Your task to perform on an android device: Add alienware aurora to the cart on newegg, then select checkout. Image 0: 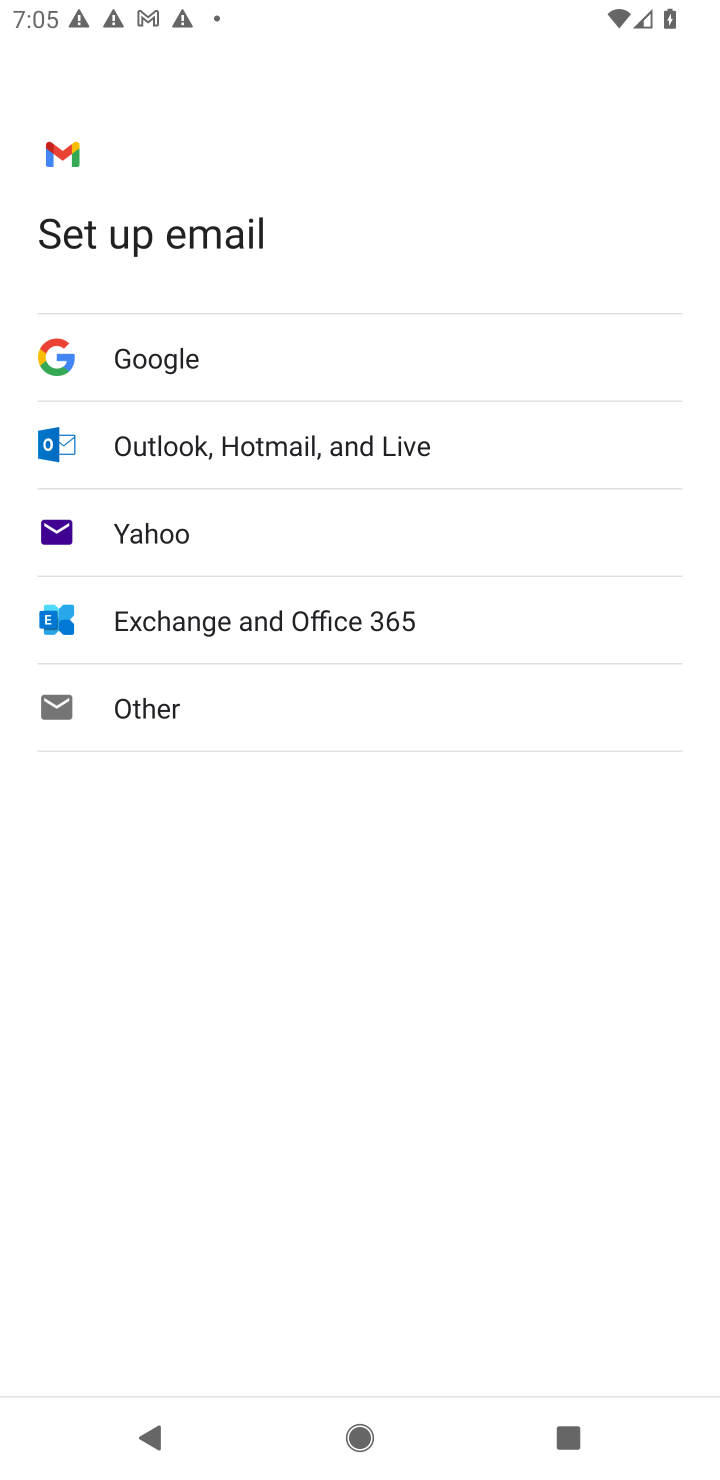
Step 0: press home button
Your task to perform on an android device: Add alienware aurora to the cart on newegg, then select checkout. Image 1: 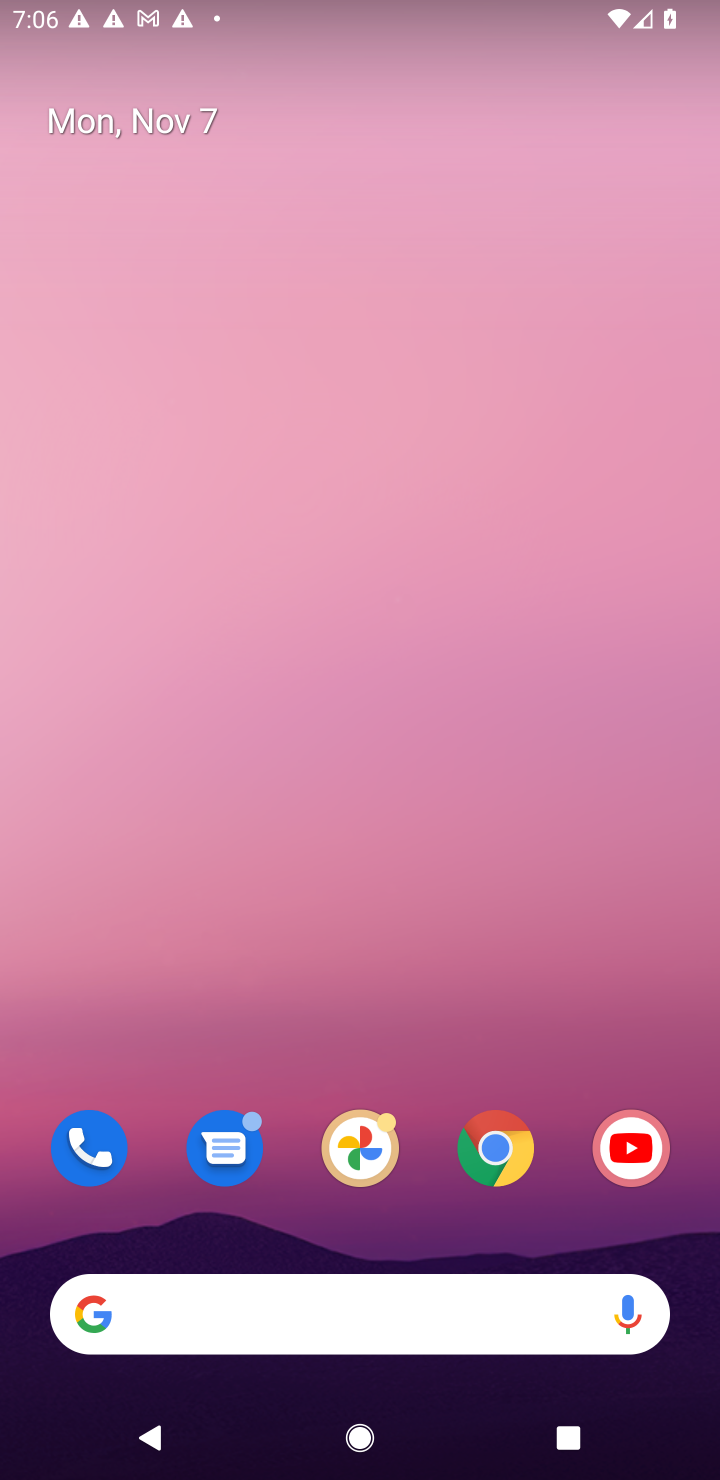
Step 1: click (512, 1133)
Your task to perform on an android device: Add alienware aurora to the cart on newegg, then select checkout. Image 2: 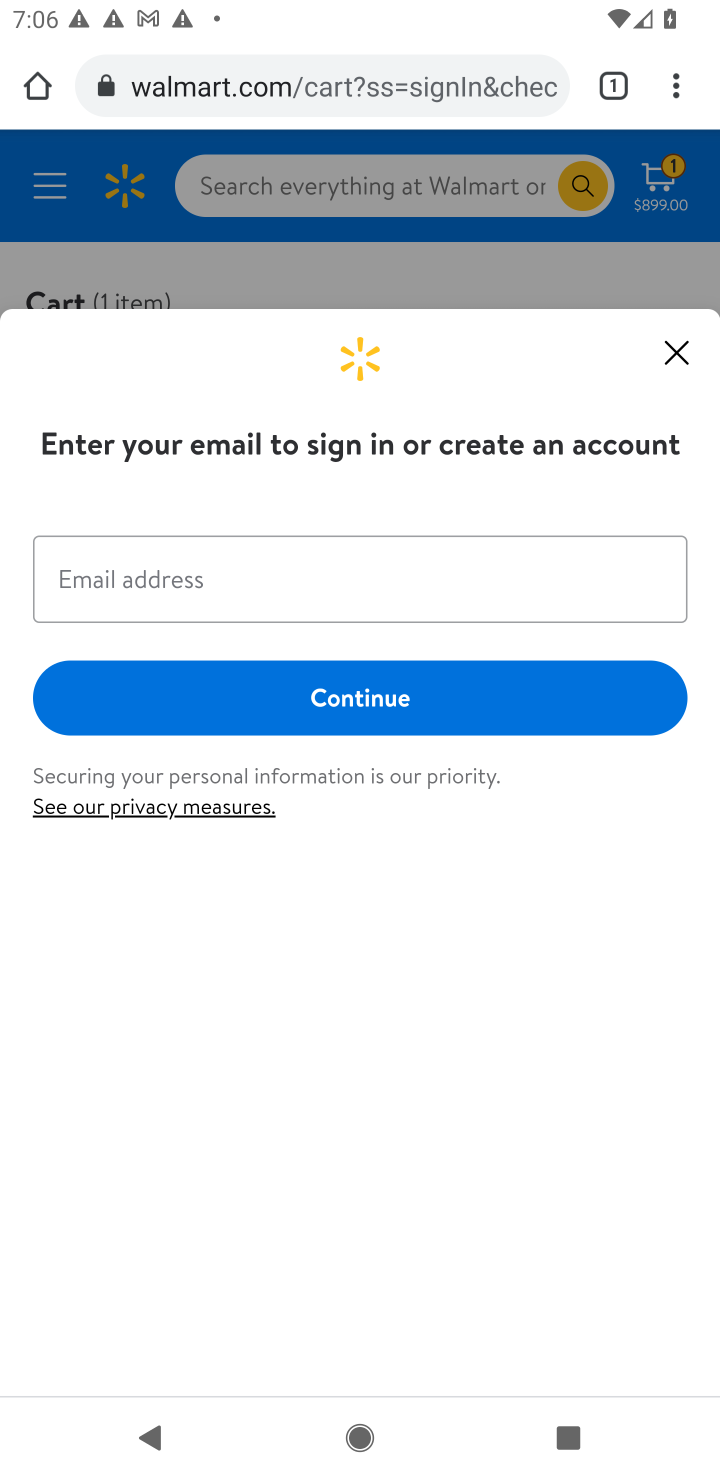
Step 2: click (391, 64)
Your task to perform on an android device: Add alienware aurora to the cart on newegg, then select checkout. Image 3: 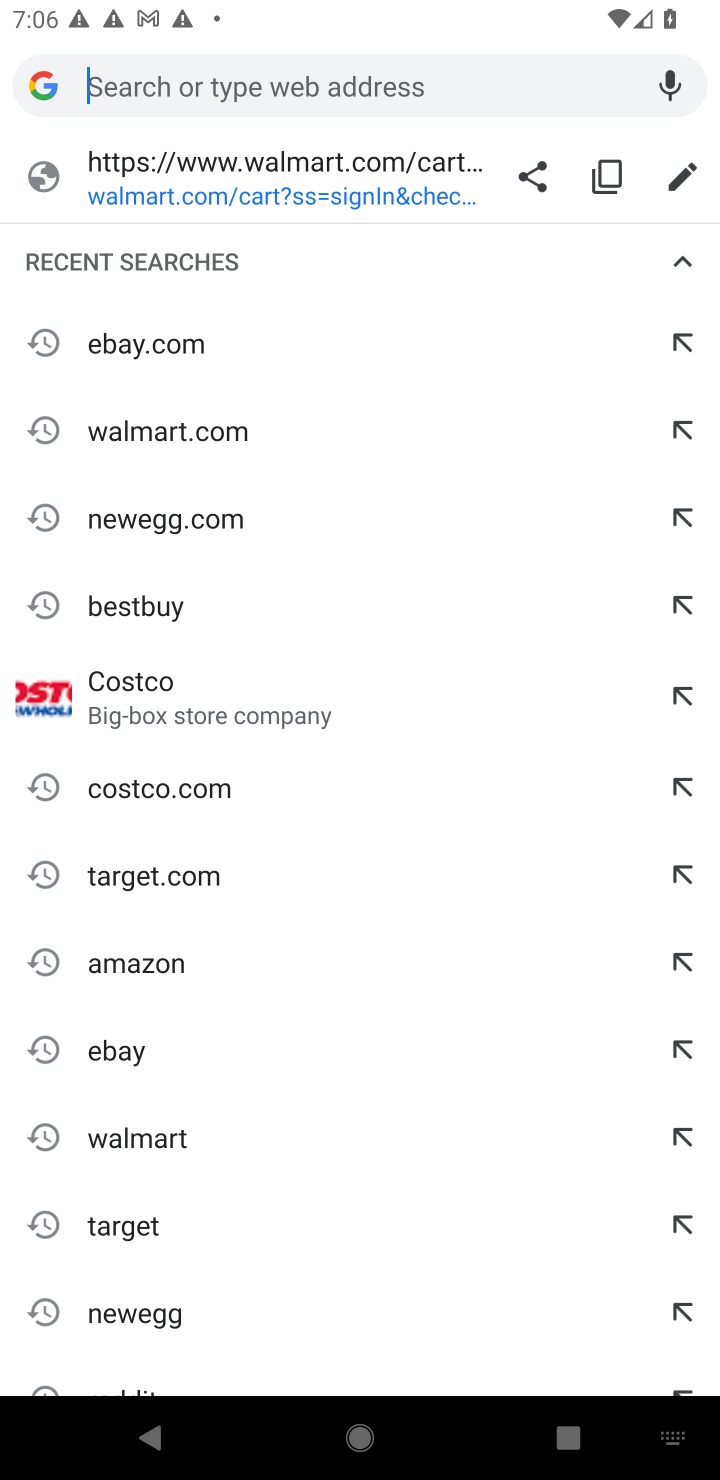
Step 3: click (199, 513)
Your task to perform on an android device: Add alienware aurora to the cart on newegg, then select checkout. Image 4: 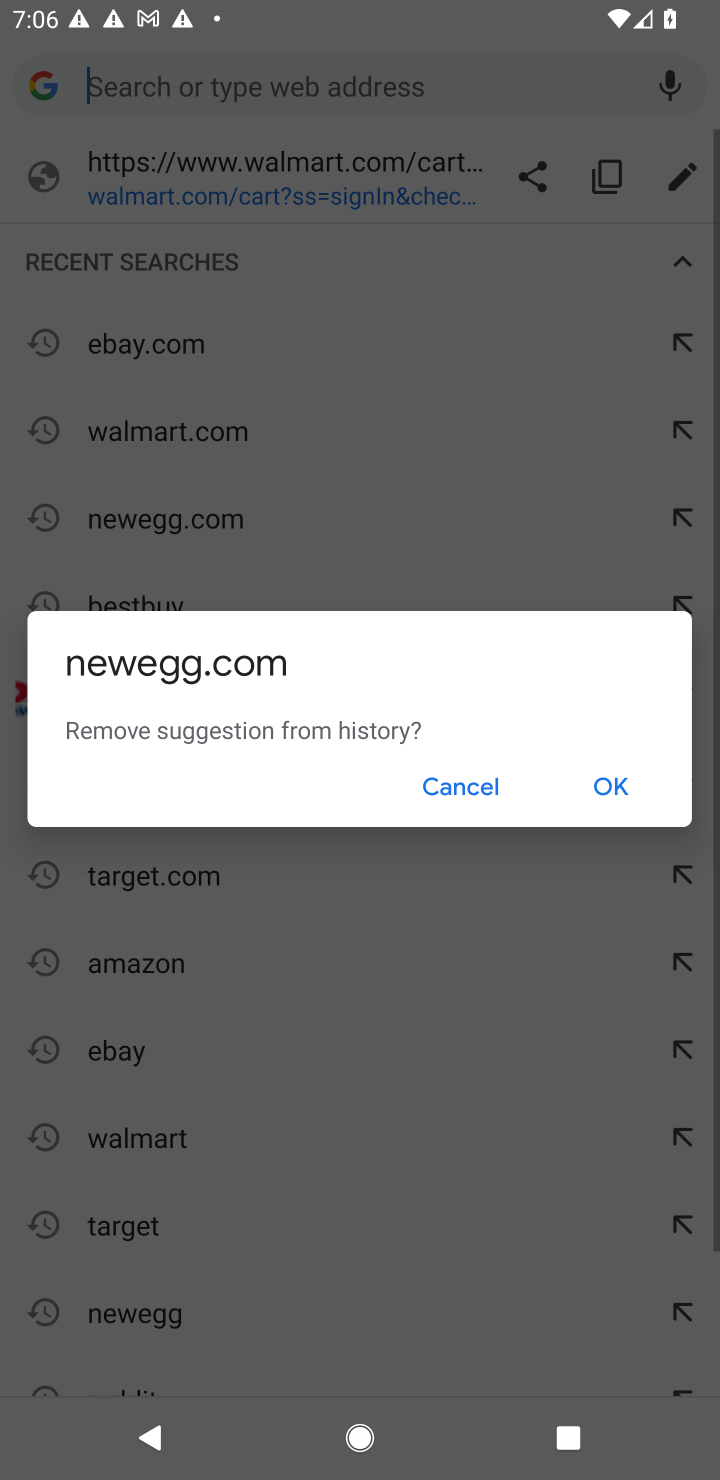
Step 4: click (614, 775)
Your task to perform on an android device: Add alienware aurora to the cart on newegg, then select checkout. Image 5: 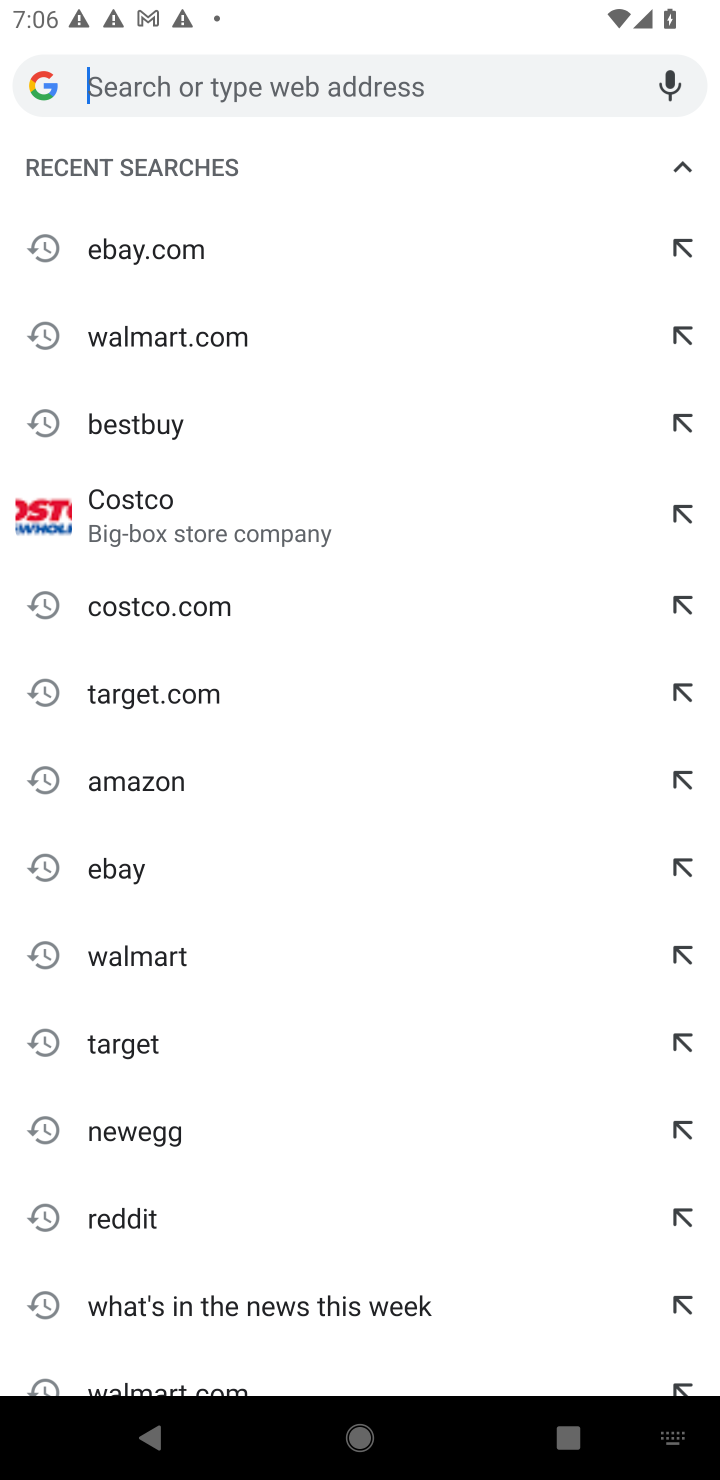
Step 5: type "newegg"
Your task to perform on an android device: Add alienware aurora to the cart on newegg, then select checkout. Image 6: 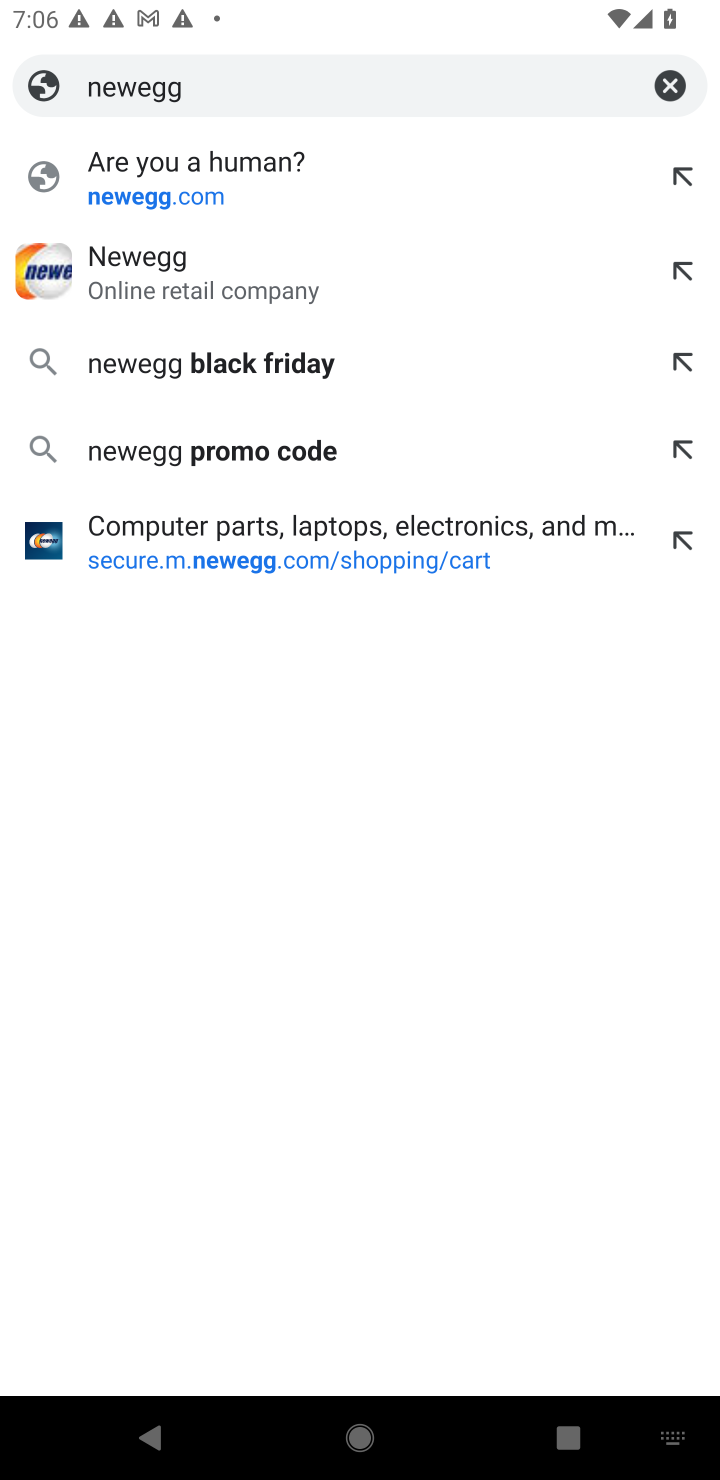
Step 6: click (417, 85)
Your task to perform on an android device: Add alienware aurora to the cart on newegg, then select checkout. Image 7: 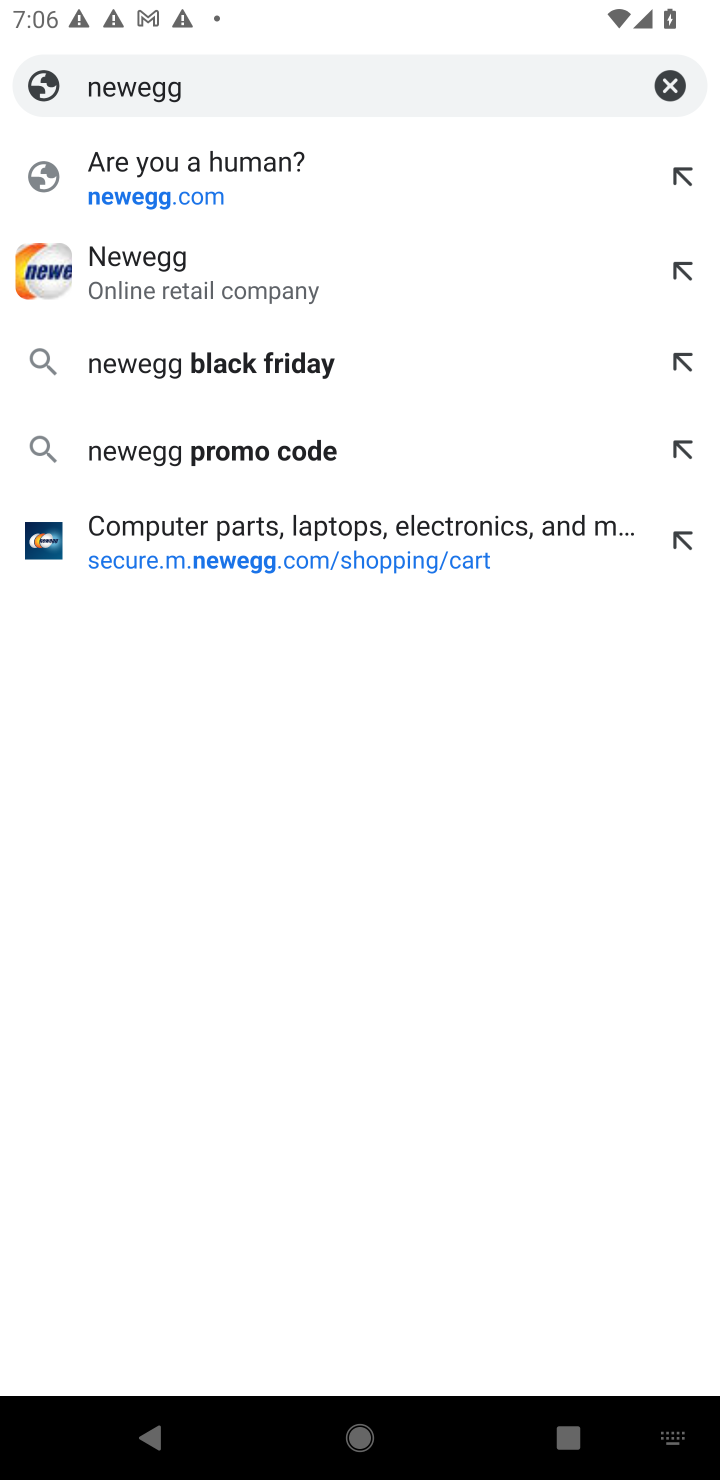
Step 7: click (670, 70)
Your task to perform on an android device: Add alienware aurora to the cart on newegg, then select checkout. Image 8: 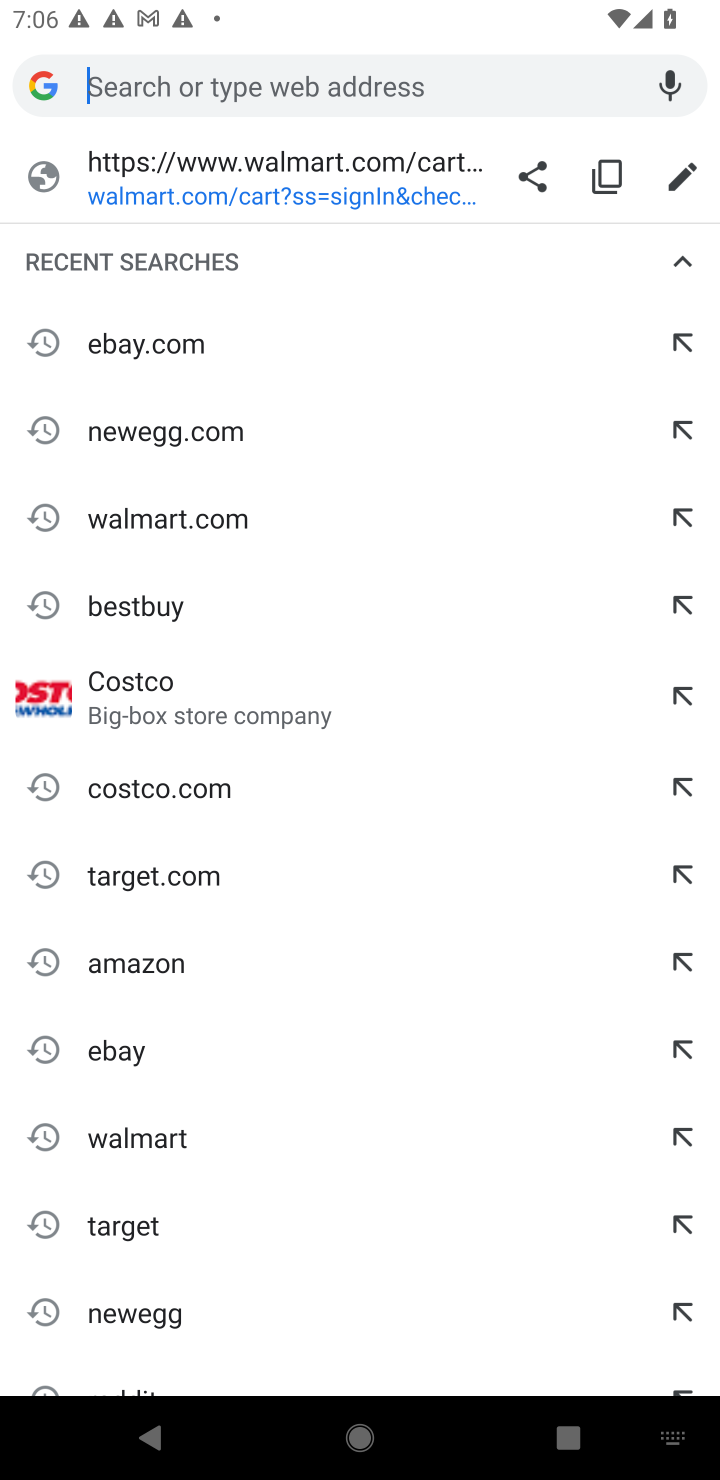
Step 8: click (192, 431)
Your task to perform on an android device: Add alienware aurora to the cart on newegg, then select checkout. Image 9: 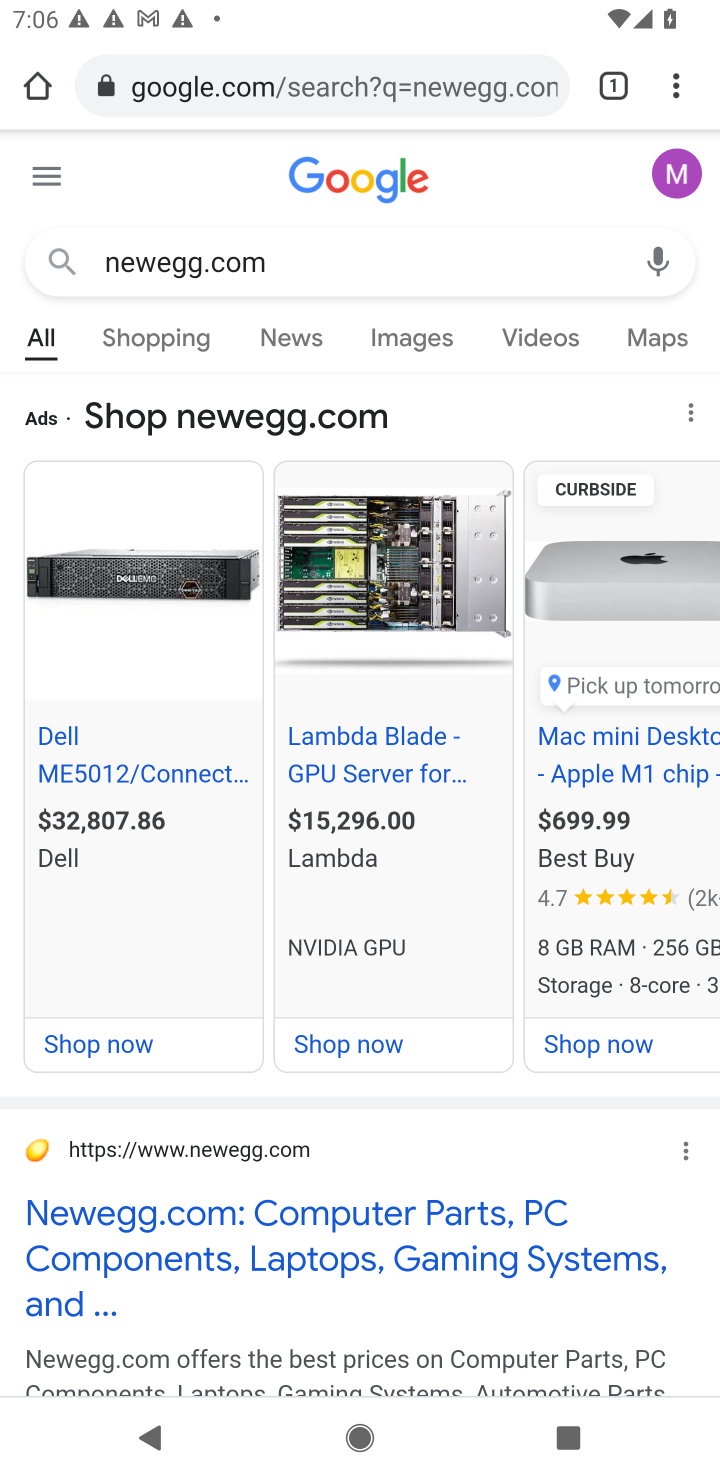
Step 9: click (229, 1138)
Your task to perform on an android device: Add alienware aurora to the cart on newegg, then select checkout. Image 10: 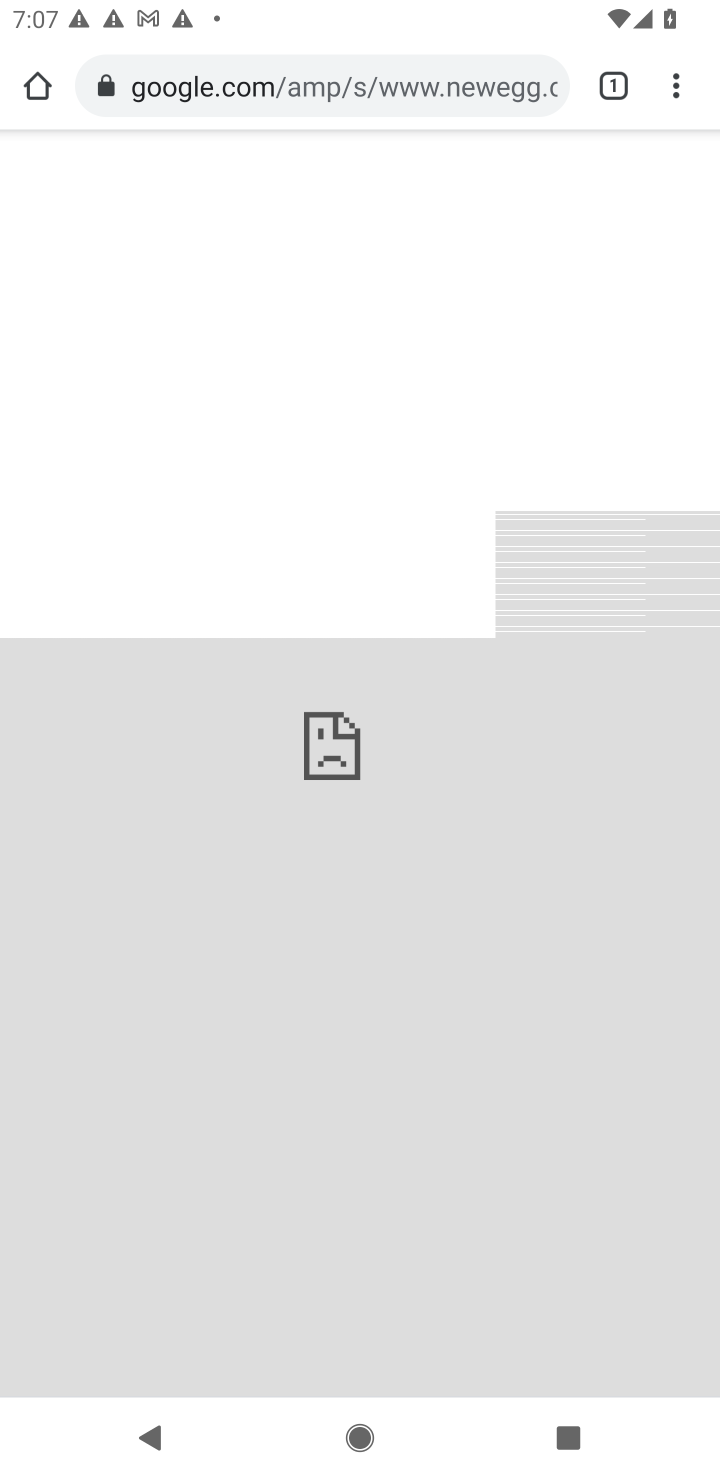
Step 10: press back button
Your task to perform on an android device: Add alienware aurora to the cart on newegg, then select checkout. Image 11: 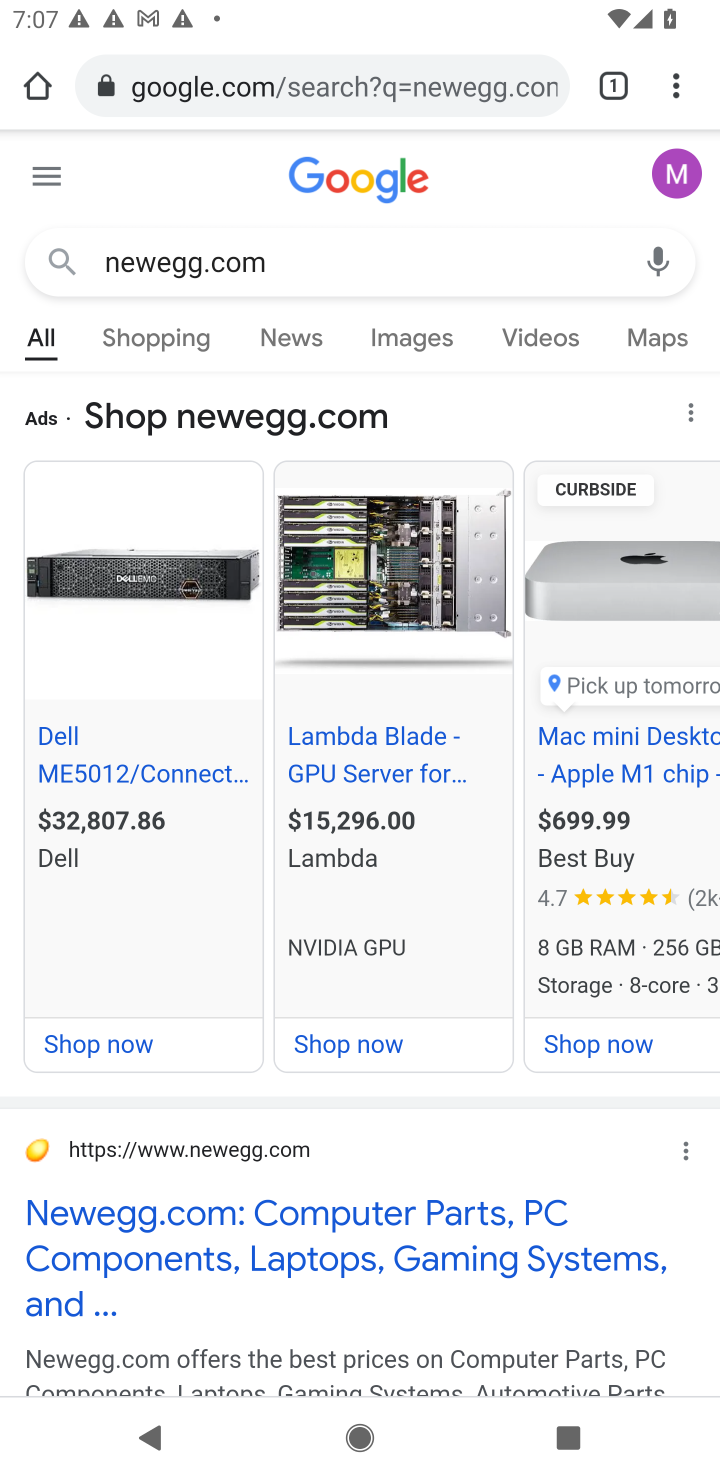
Step 11: drag from (491, 1031) to (479, 506)
Your task to perform on an android device: Add alienware aurora to the cart on newegg, then select checkout. Image 12: 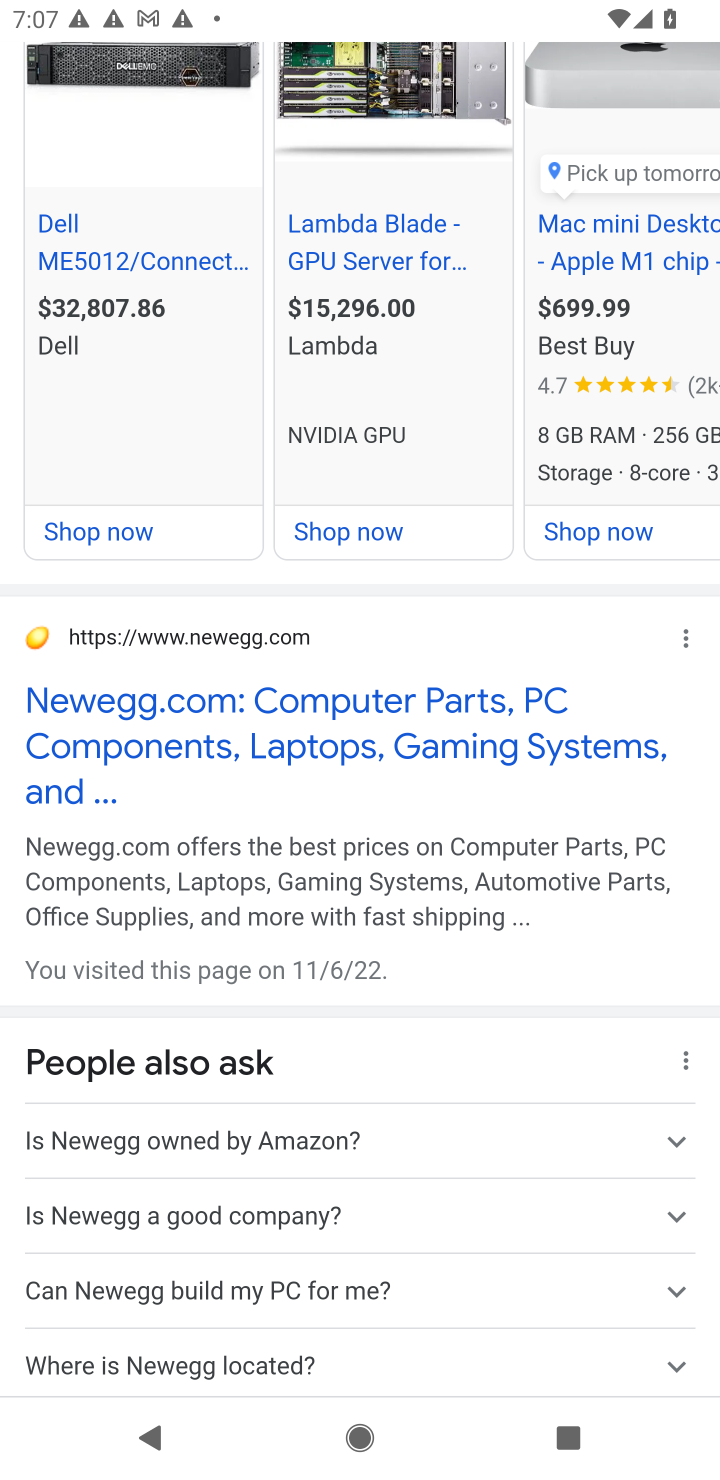
Step 12: drag from (551, 1203) to (575, 612)
Your task to perform on an android device: Add alienware aurora to the cart on newegg, then select checkout. Image 13: 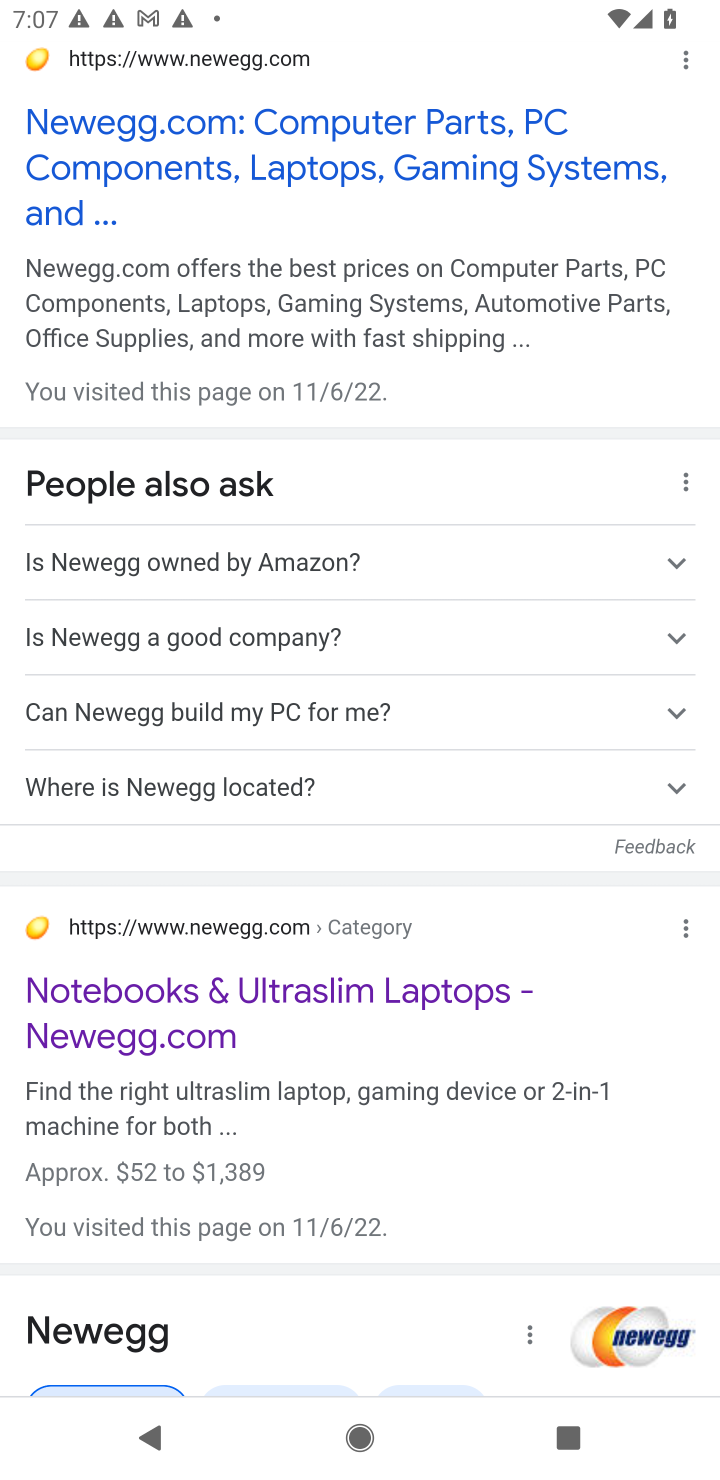
Step 13: click (283, 916)
Your task to perform on an android device: Add alienware aurora to the cart on newegg, then select checkout. Image 14: 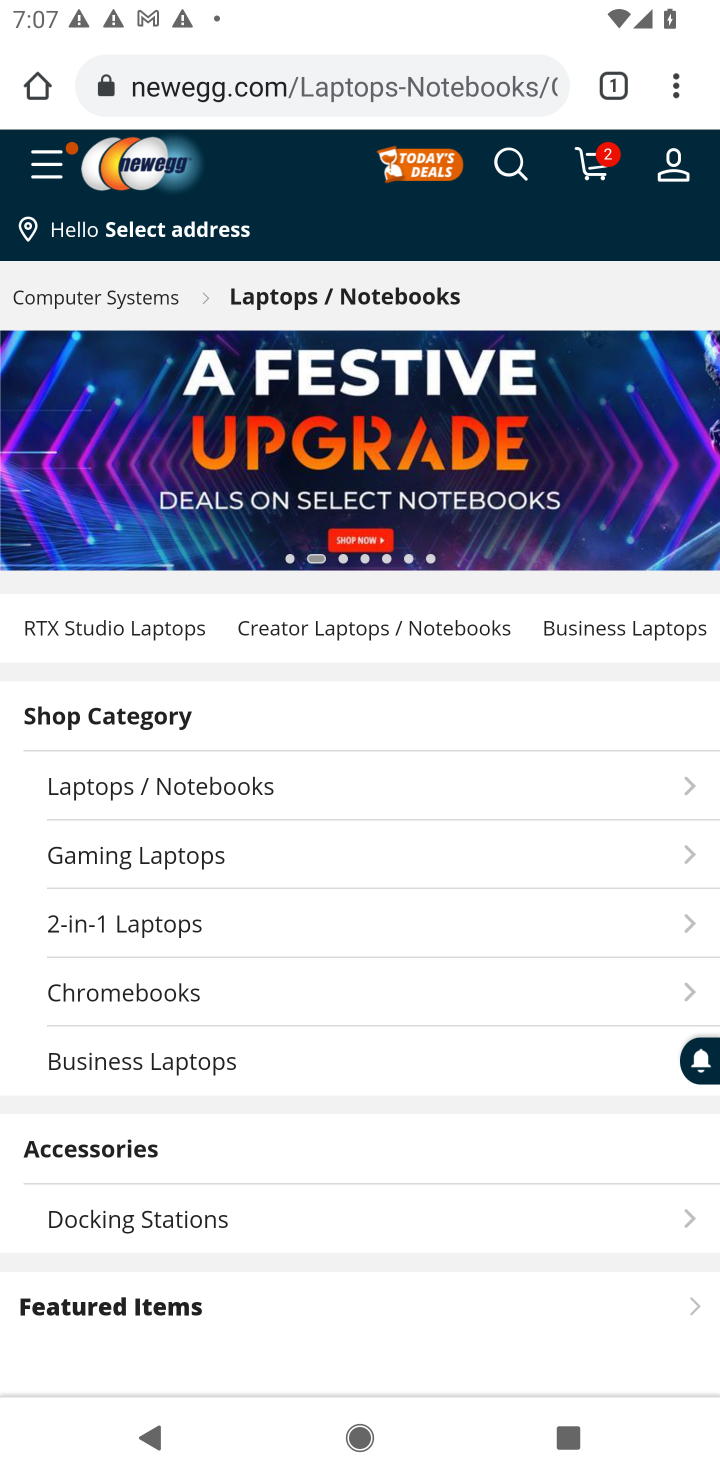
Step 14: click (498, 158)
Your task to perform on an android device: Add alienware aurora to the cart on newegg, then select checkout. Image 15: 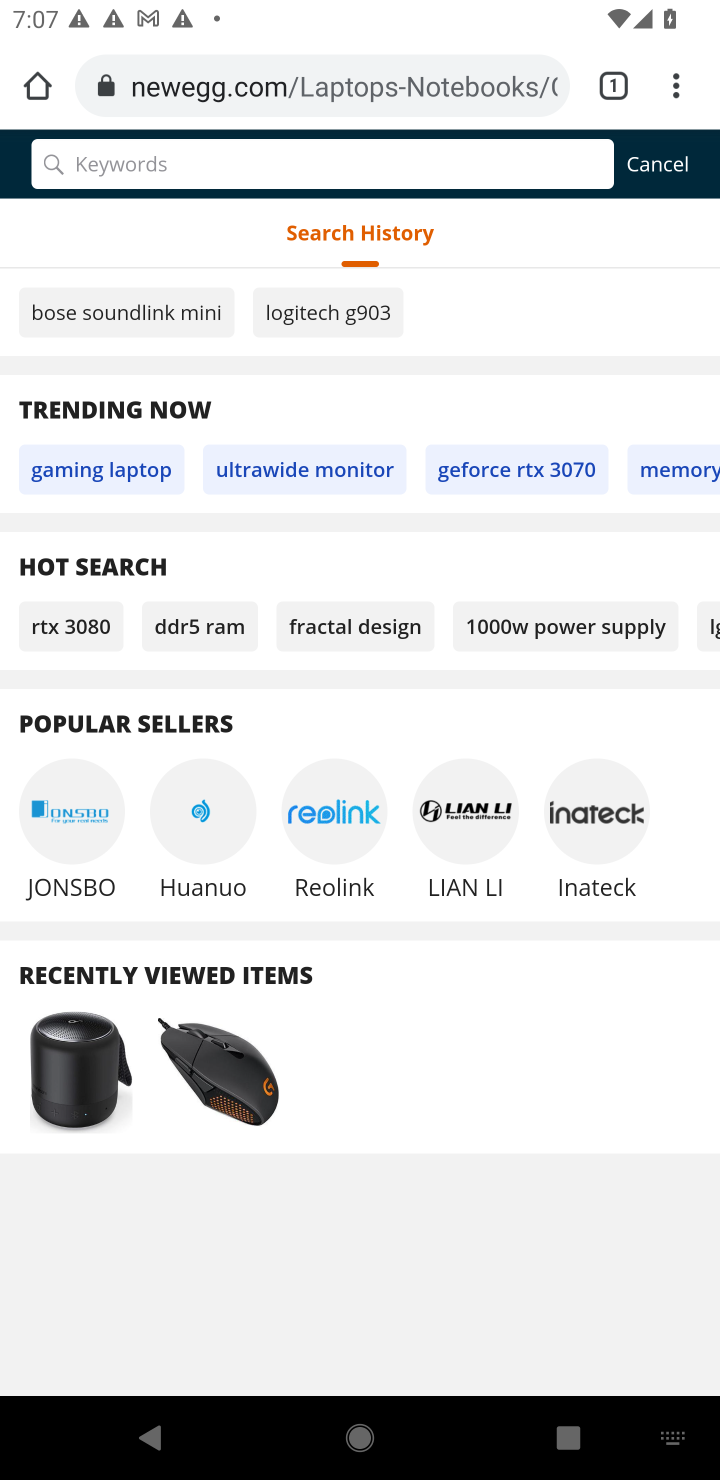
Step 15: type "alienware aurora"
Your task to perform on an android device: Add alienware aurora to the cart on newegg, then select checkout. Image 16: 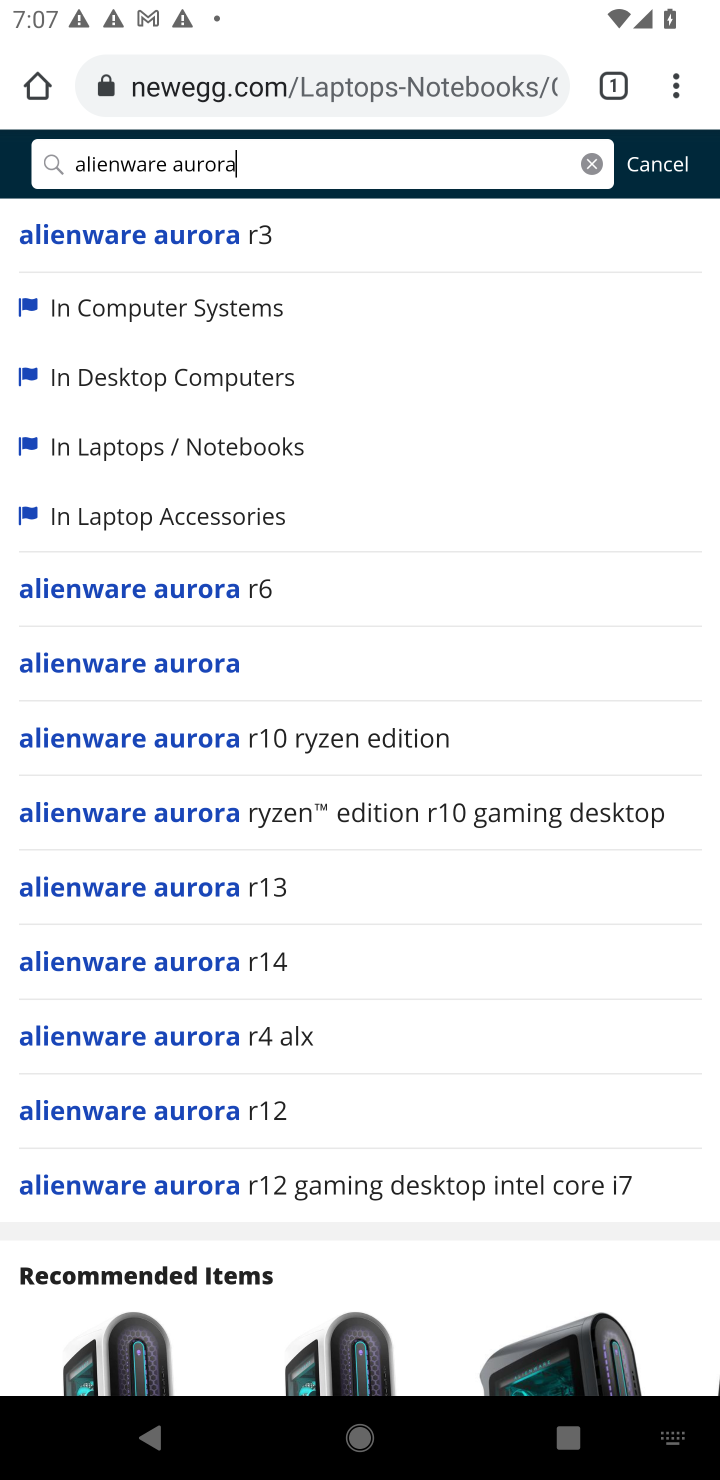
Step 16: click (221, 665)
Your task to perform on an android device: Add alienware aurora to the cart on newegg, then select checkout. Image 17: 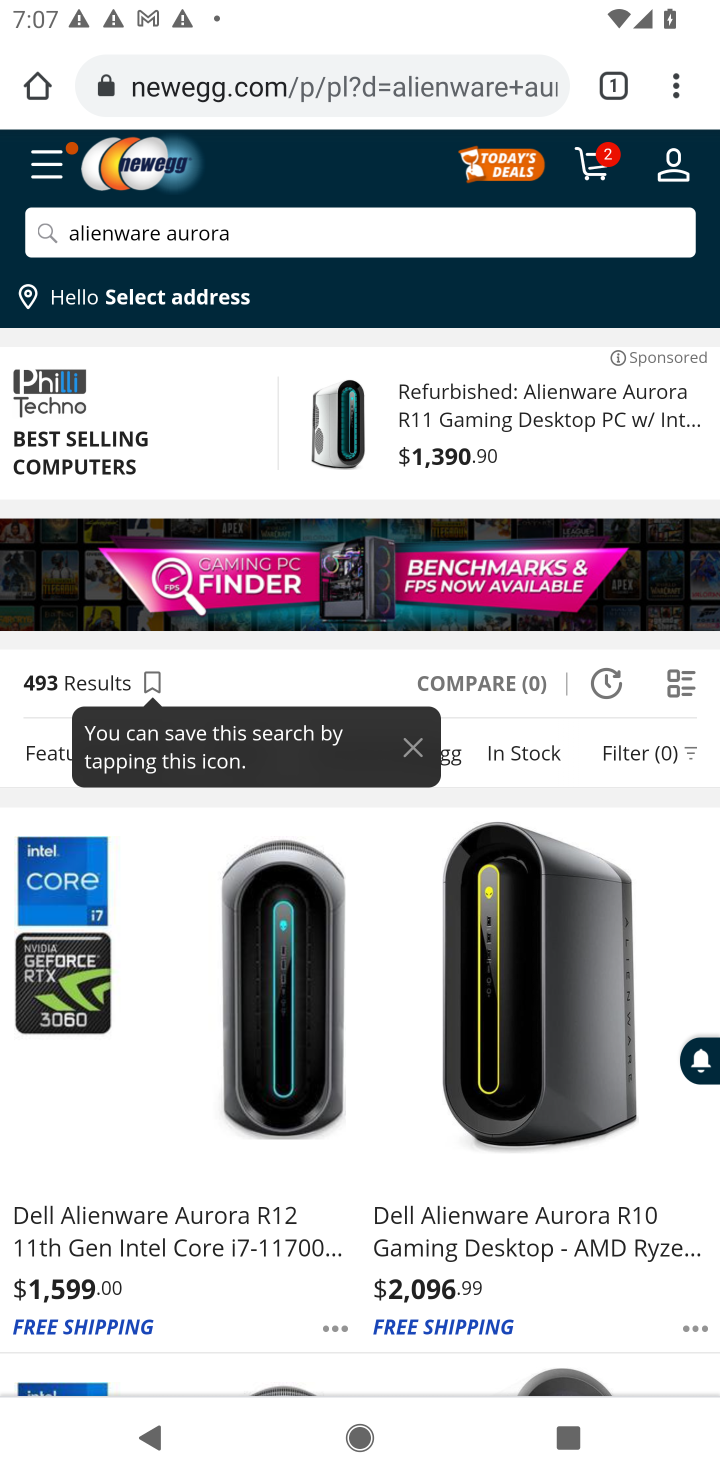
Step 17: drag from (180, 1016) to (408, 419)
Your task to perform on an android device: Add alienware aurora to the cart on newegg, then select checkout. Image 18: 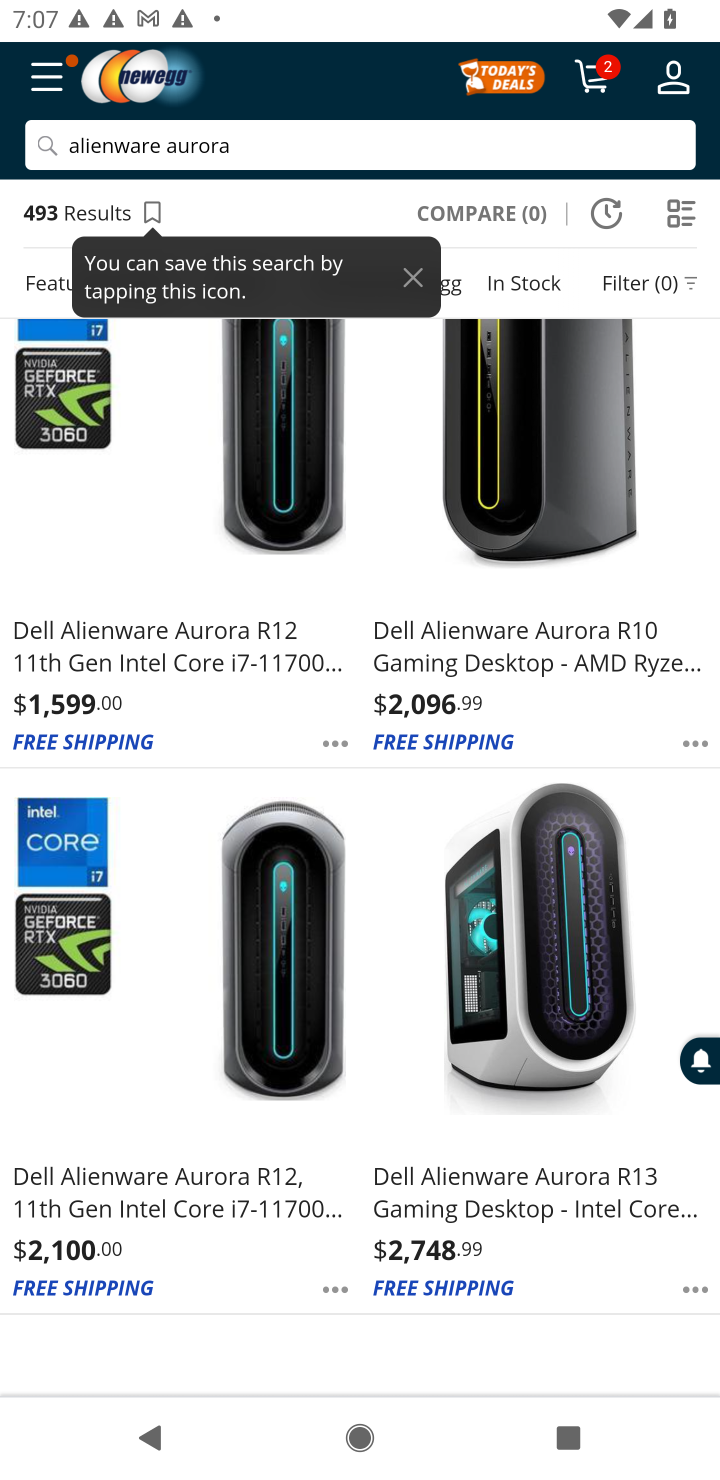
Step 18: click (196, 526)
Your task to perform on an android device: Add alienware aurora to the cart on newegg, then select checkout. Image 19: 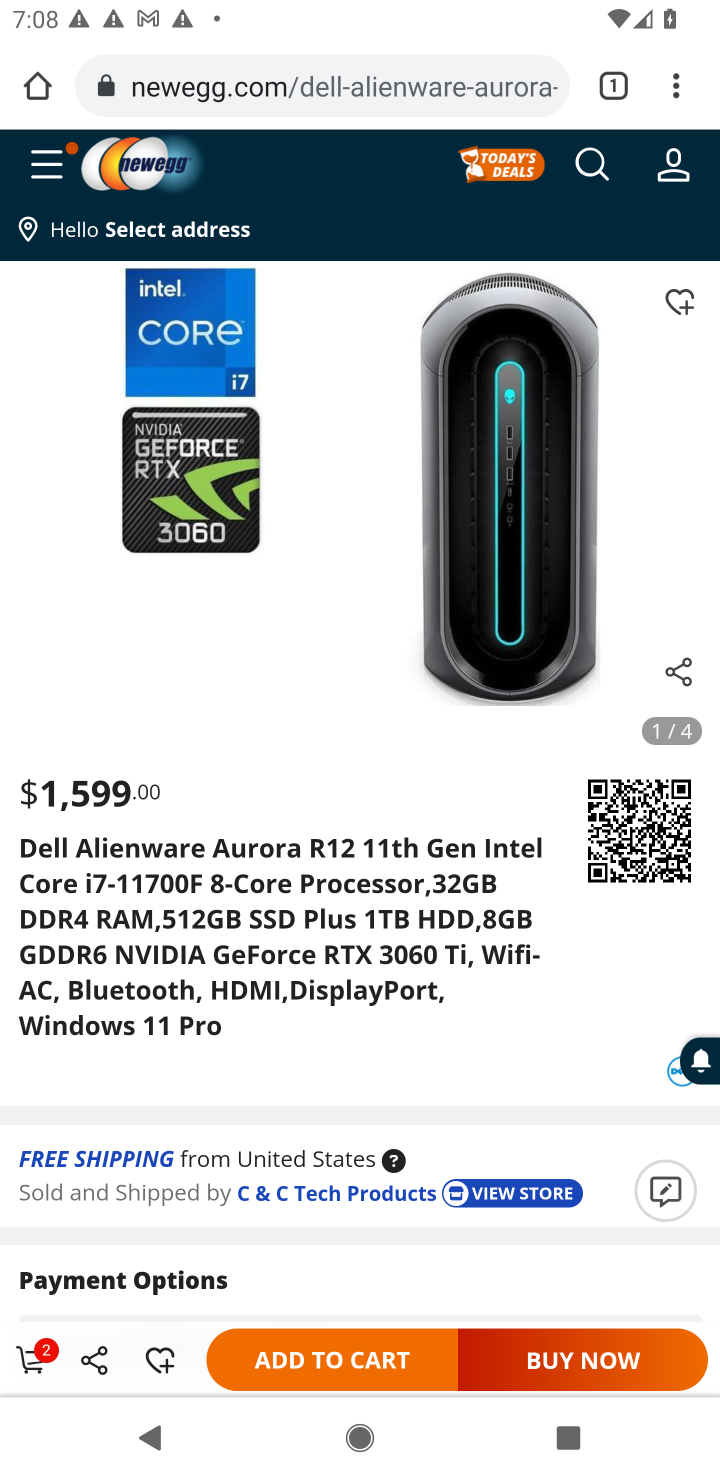
Step 19: click (329, 1360)
Your task to perform on an android device: Add alienware aurora to the cart on newegg, then select checkout. Image 20: 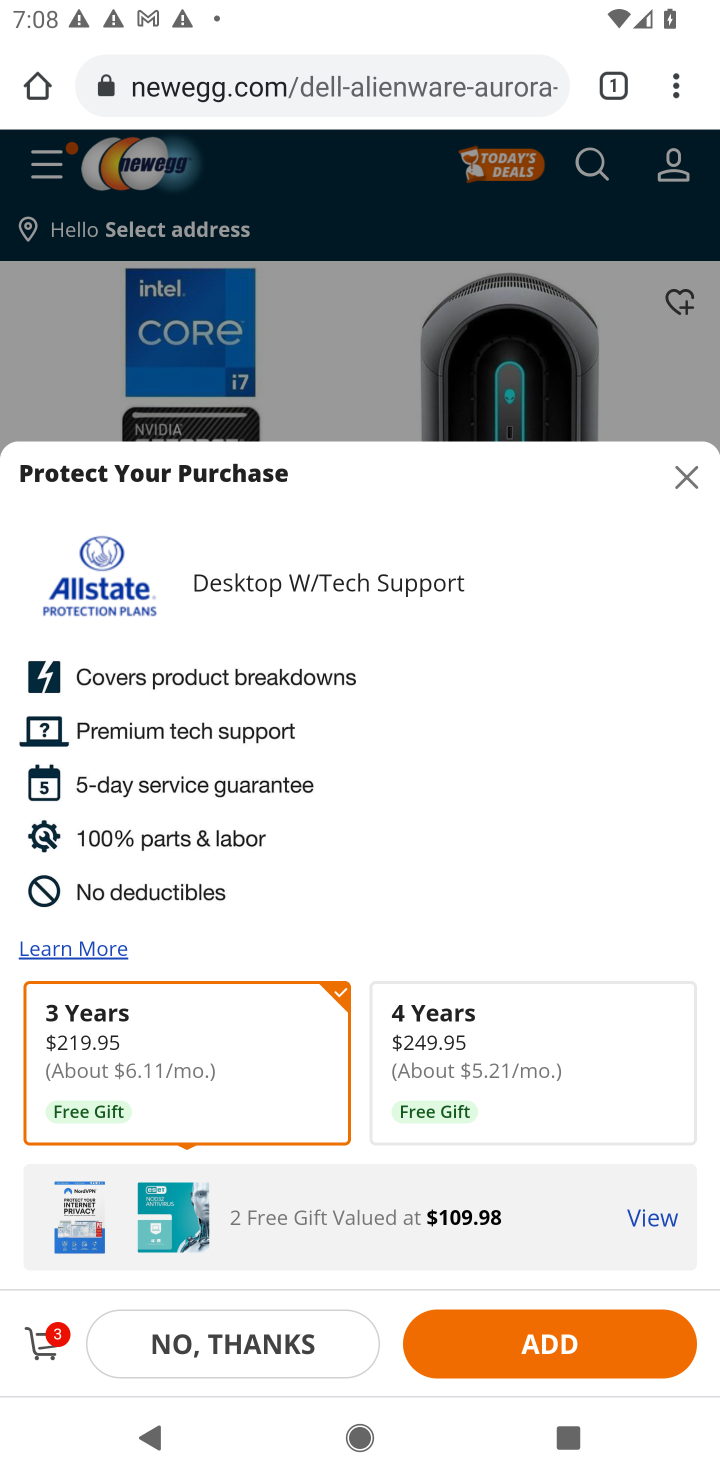
Step 20: click (691, 490)
Your task to perform on an android device: Add alienware aurora to the cart on newegg, then select checkout. Image 21: 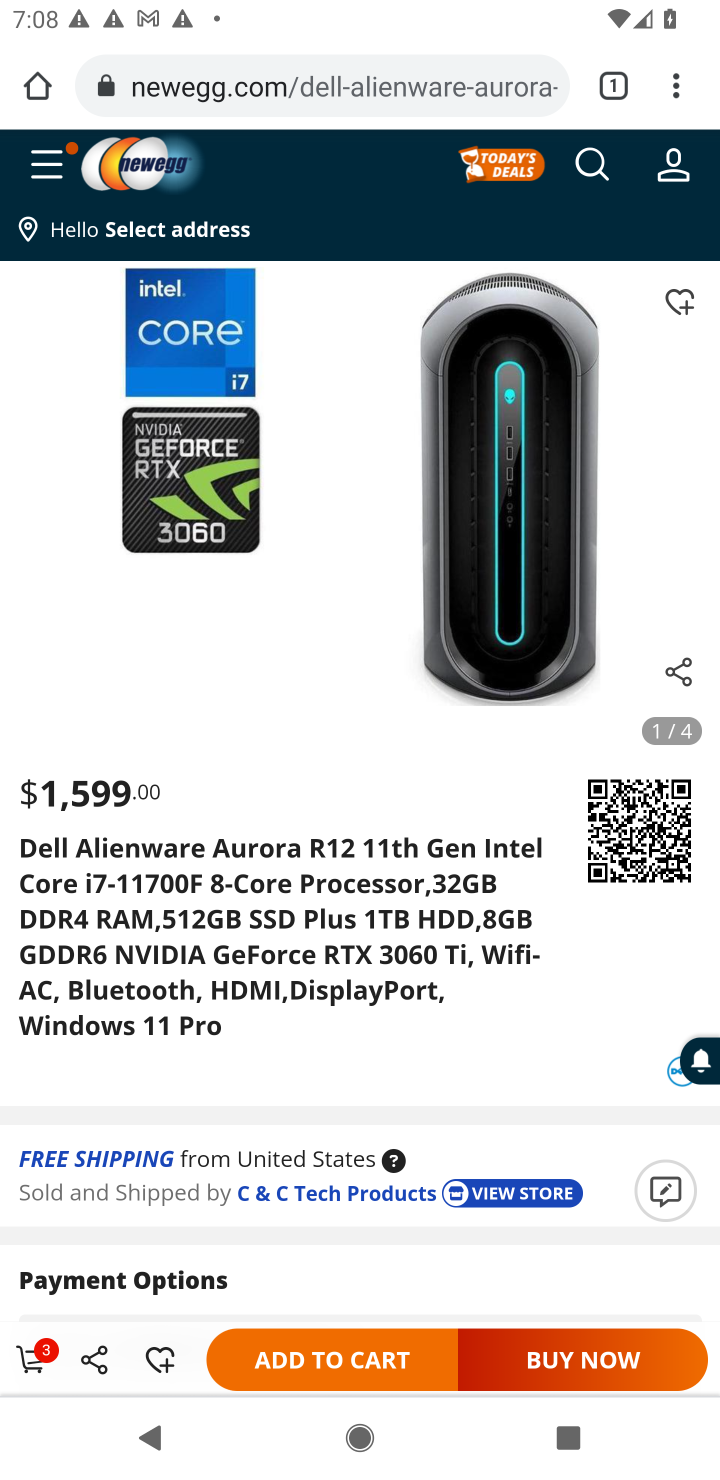
Step 21: click (31, 1367)
Your task to perform on an android device: Add alienware aurora to the cart on newegg, then select checkout. Image 22: 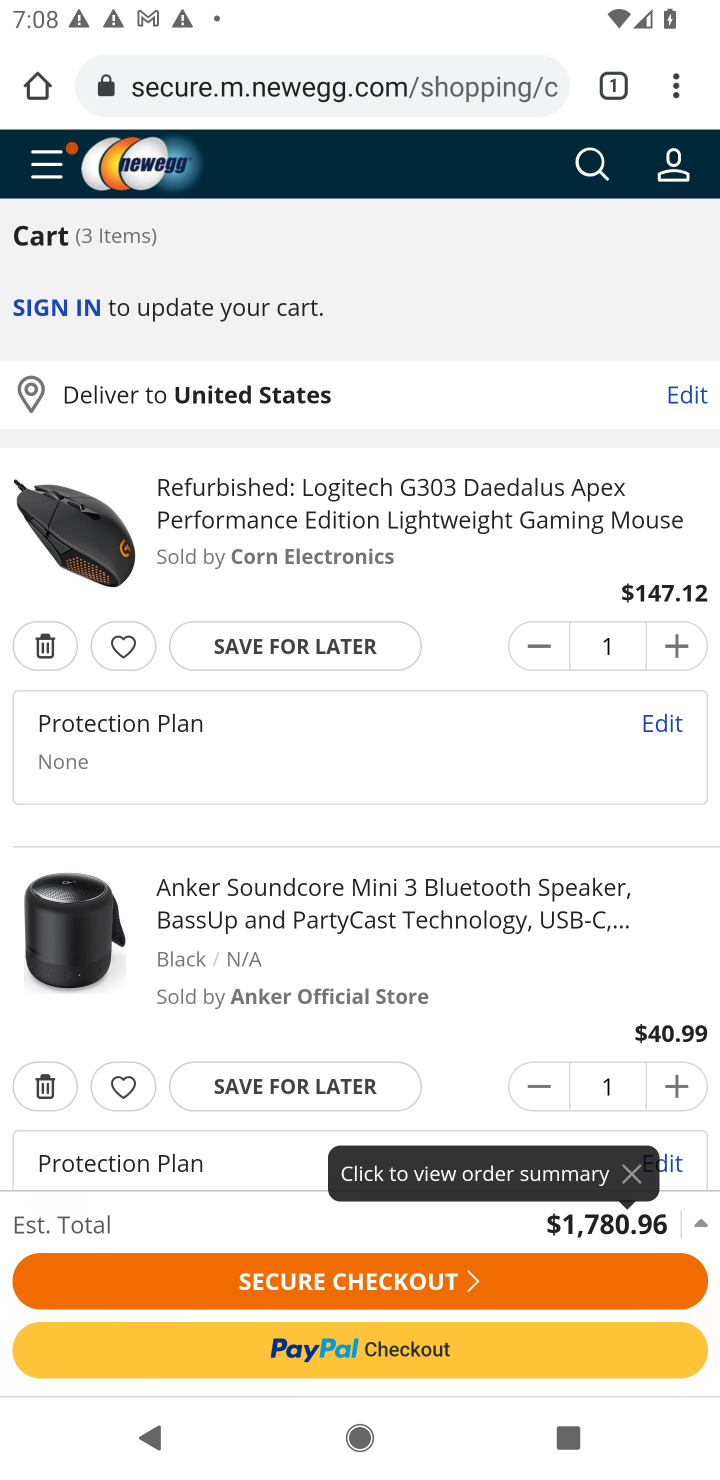
Step 22: click (346, 1264)
Your task to perform on an android device: Add alienware aurora to the cart on newegg, then select checkout. Image 23: 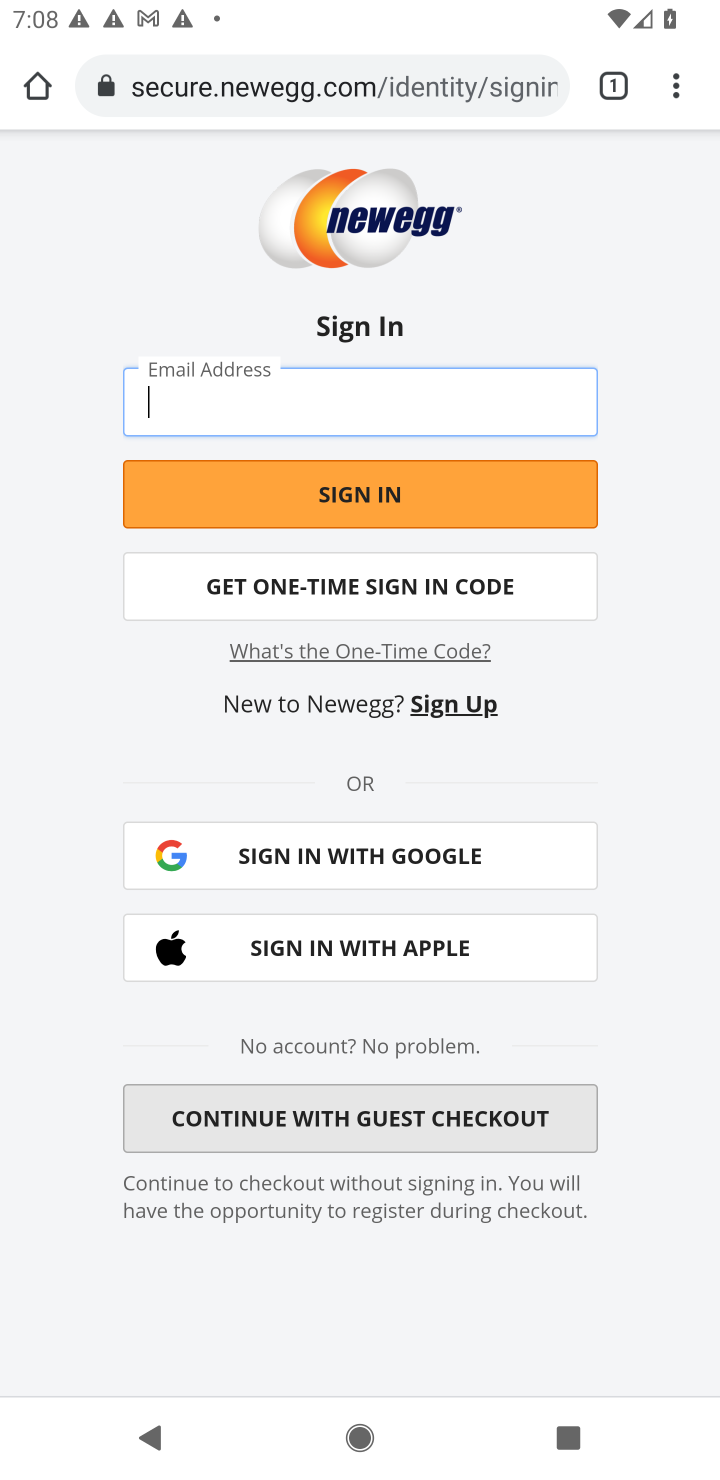
Step 23: task complete